Your task to perform on an android device: toggle translation in the chrome app Image 0: 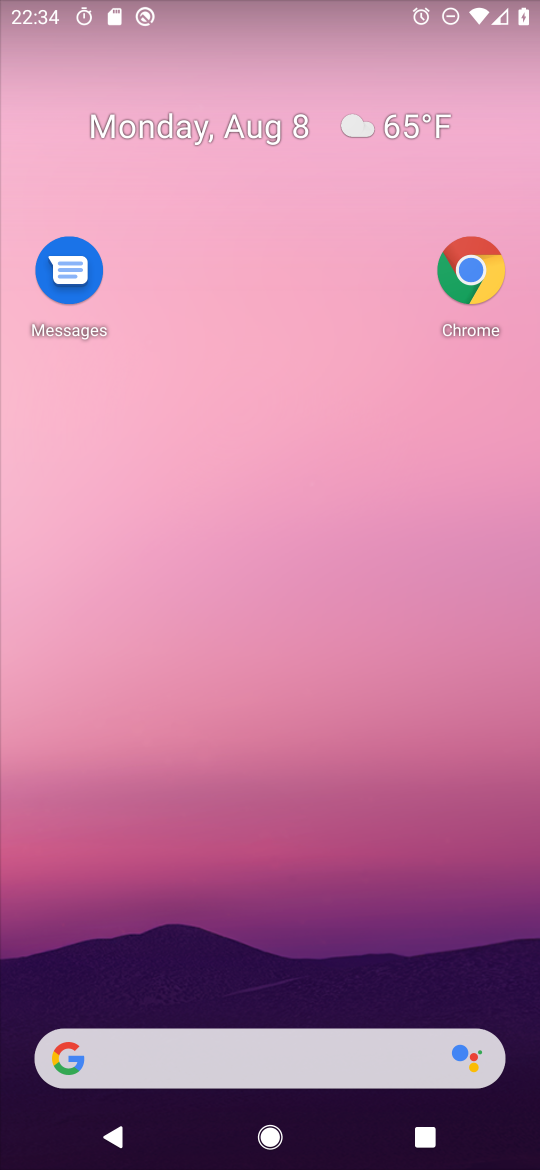
Step 0: drag from (271, 994) to (317, 61)
Your task to perform on an android device: toggle translation in the chrome app Image 1: 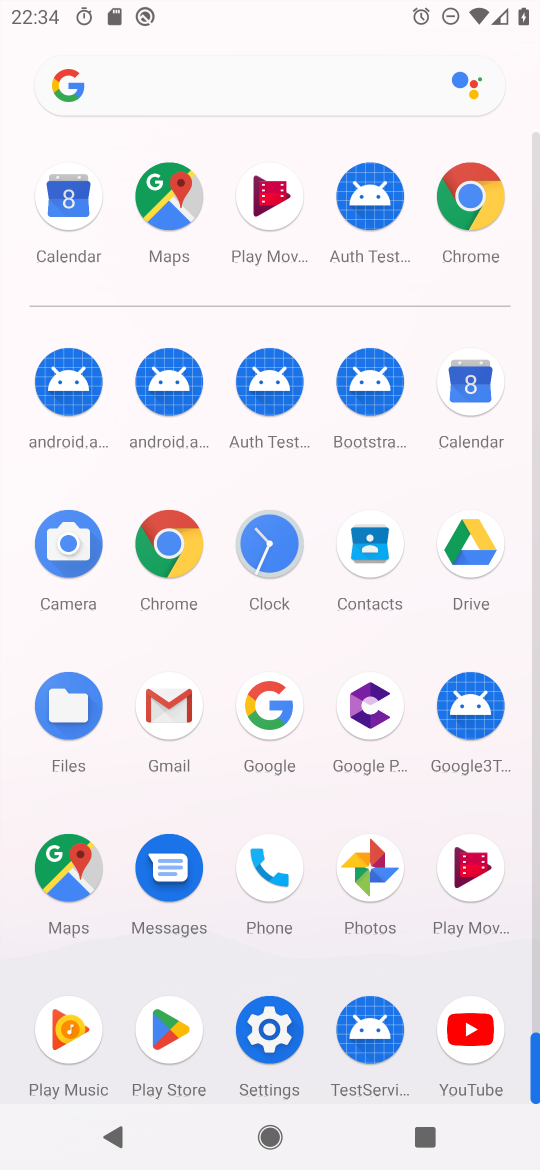
Step 1: click (157, 538)
Your task to perform on an android device: toggle translation in the chrome app Image 2: 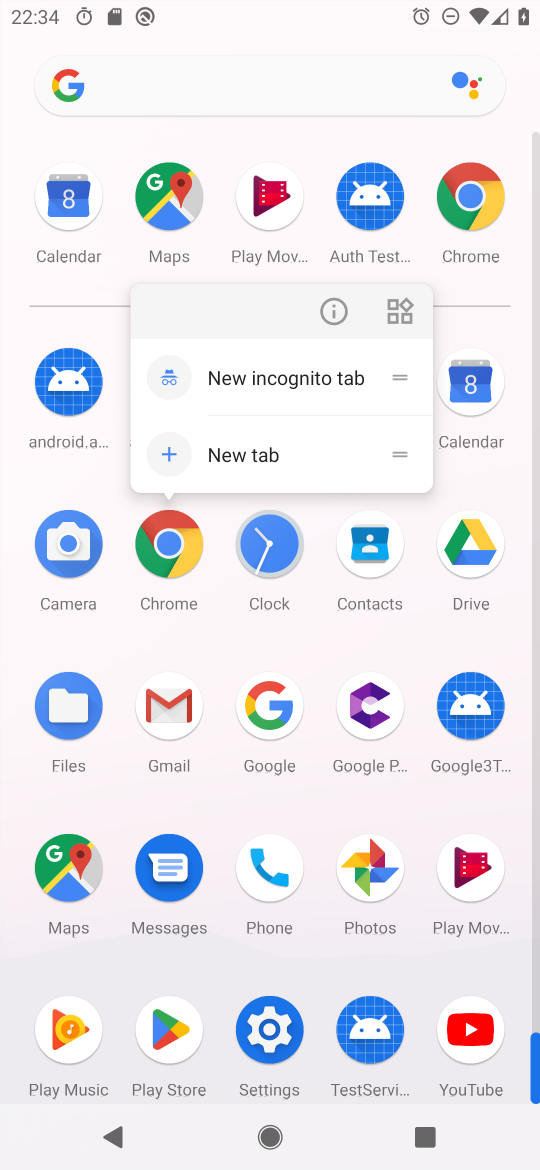
Step 2: click (330, 302)
Your task to perform on an android device: toggle translation in the chrome app Image 3: 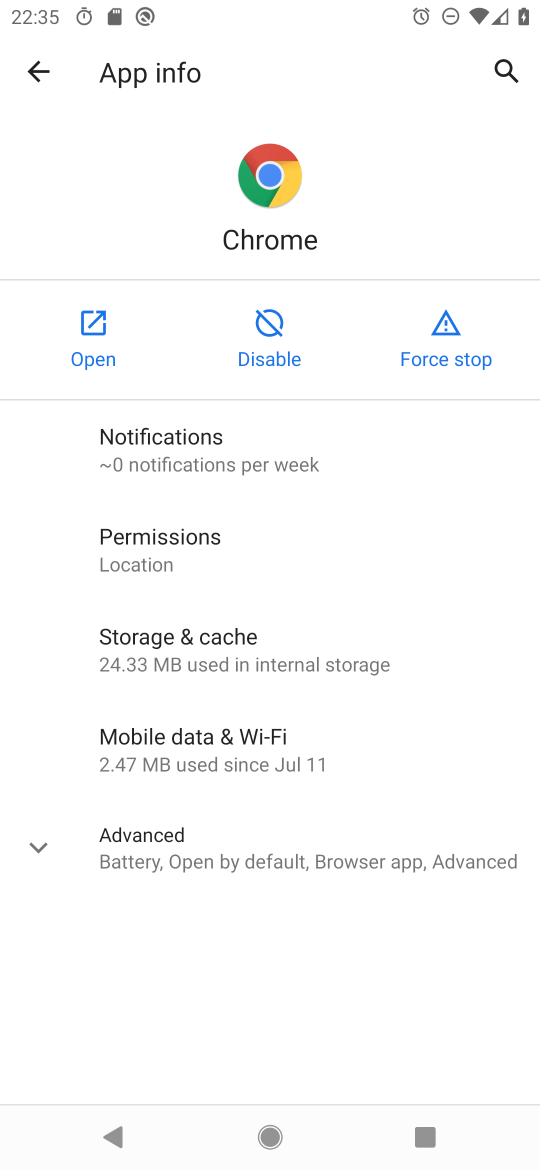
Step 3: click (90, 349)
Your task to perform on an android device: toggle translation in the chrome app Image 4: 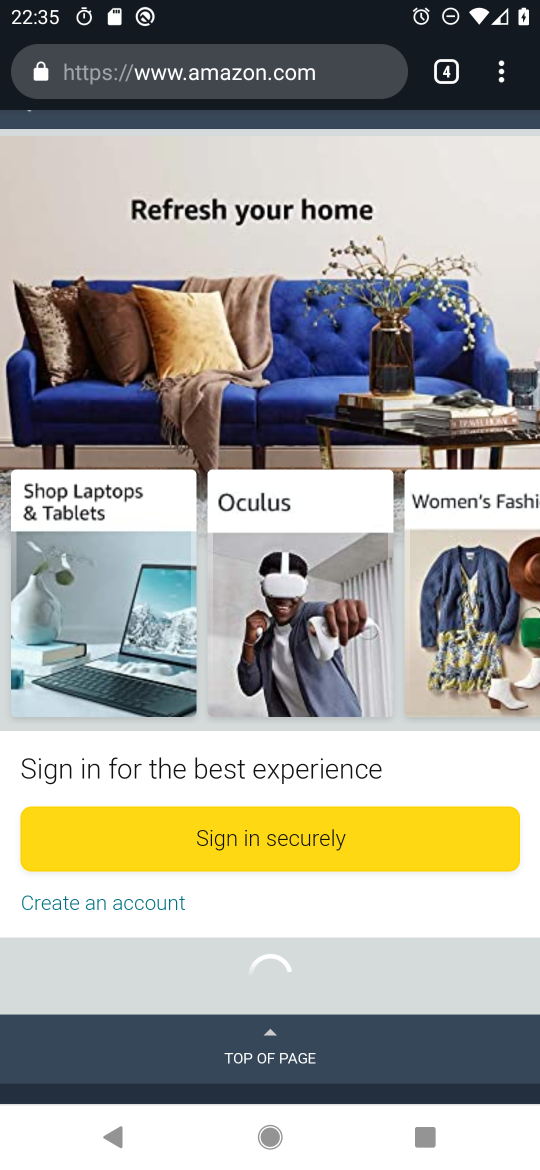
Step 4: drag from (491, 58) to (315, 861)
Your task to perform on an android device: toggle translation in the chrome app Image 5: 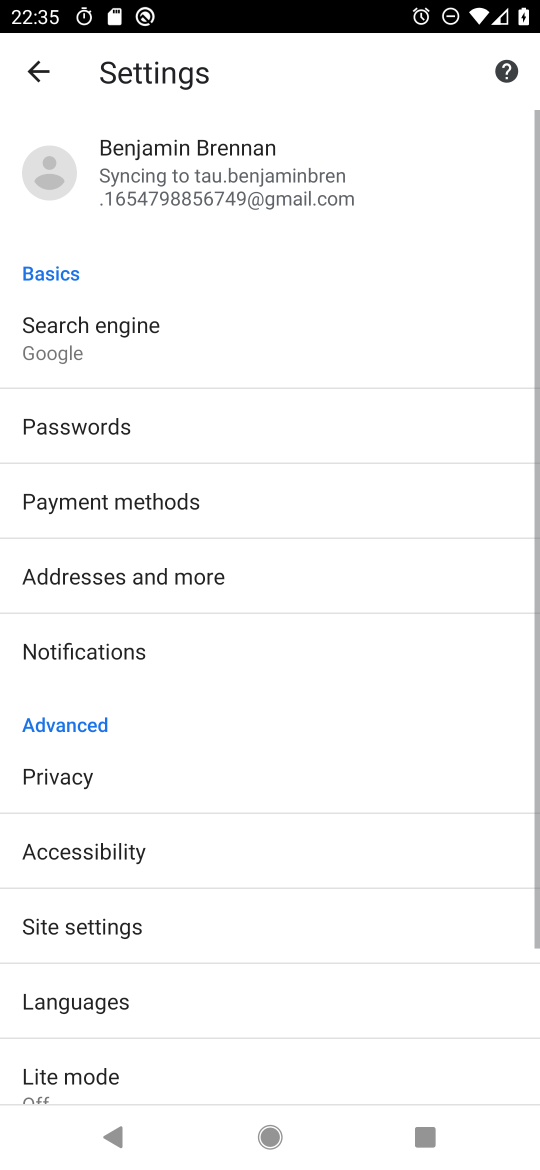
Step 5: drag from (213, 940) to (243, 403)
Your task to perform on an android device: toggle translation in the chrome app Image 6: 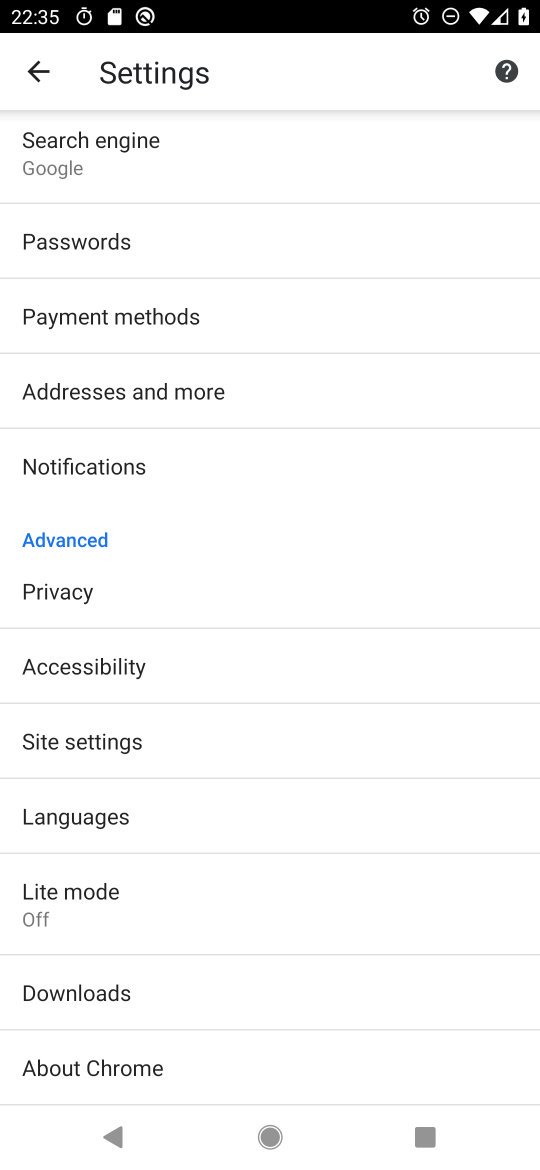
Step 6: click (189, 808)
Your task to perform on an android device: toggle translation in the chrome app Image 7: 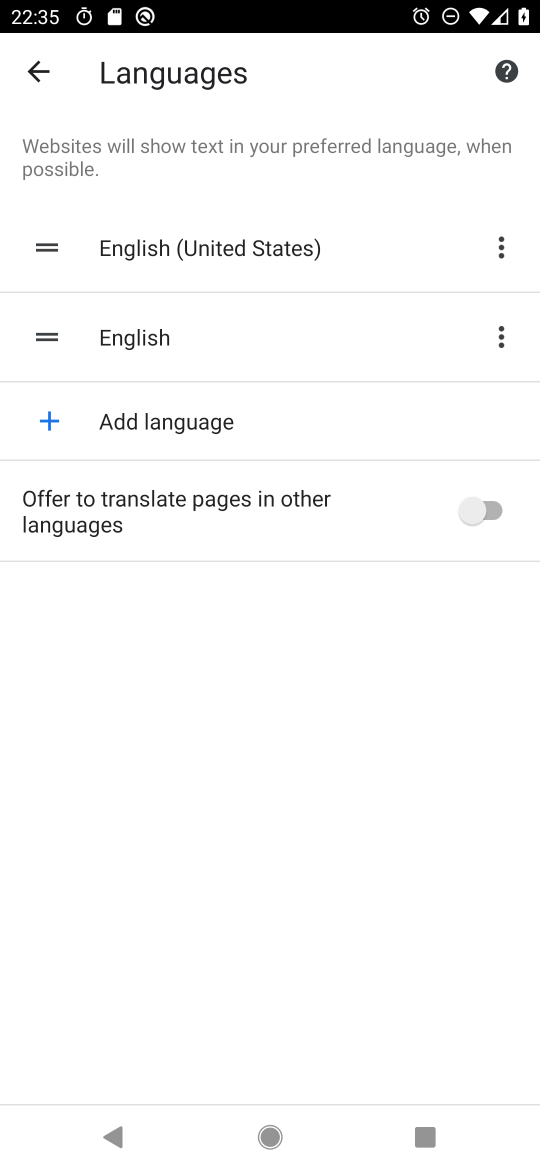
Step 7: click (370, 510)
Your task to perform on an android device: toggle translation in the chrome app Image 8: 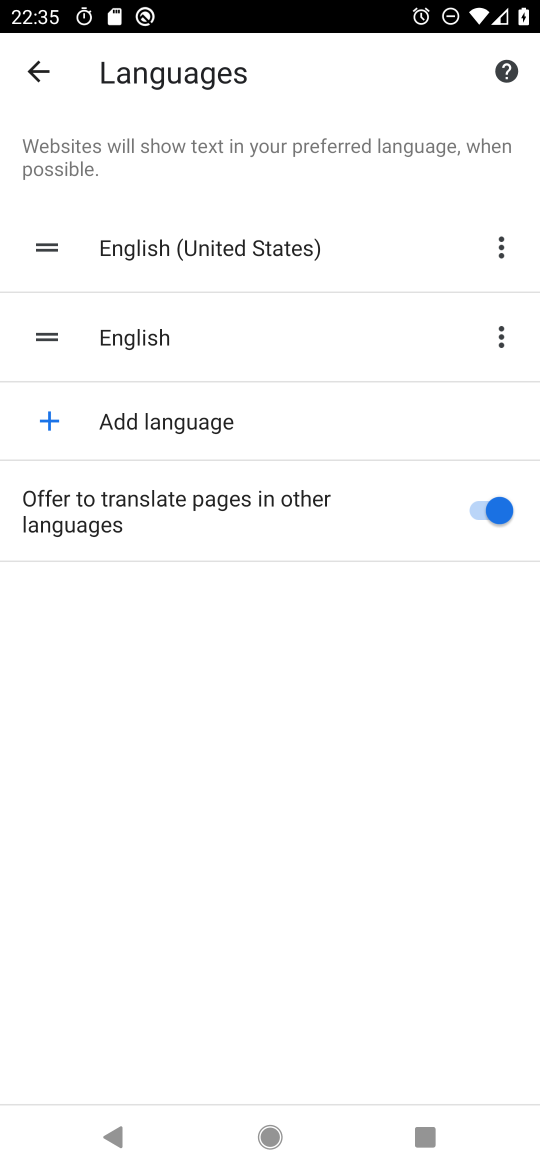
Step 8: task complete